Your task to perform on an android device: turn off location history Image 0: 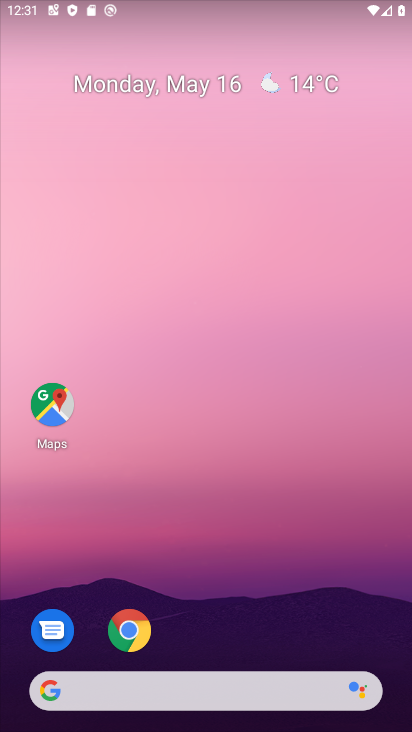
Step 0: drag from (348, 641) to (326, 53)
Your task to perform on an android device: turn off location history Image 1: 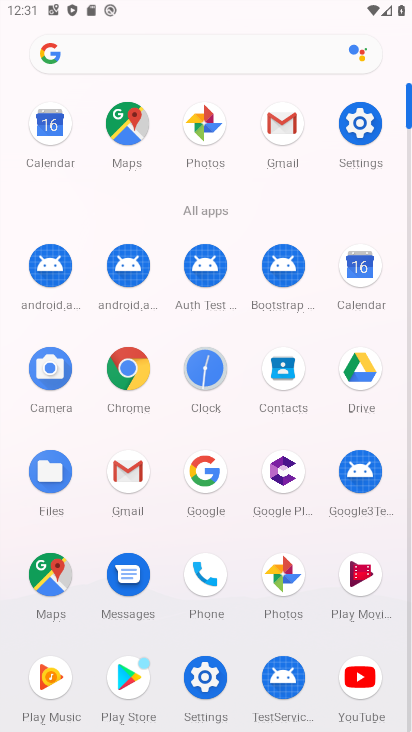
Step 1: click (205, 673)
Your task to perform on an android device: turn off location history Image 2: 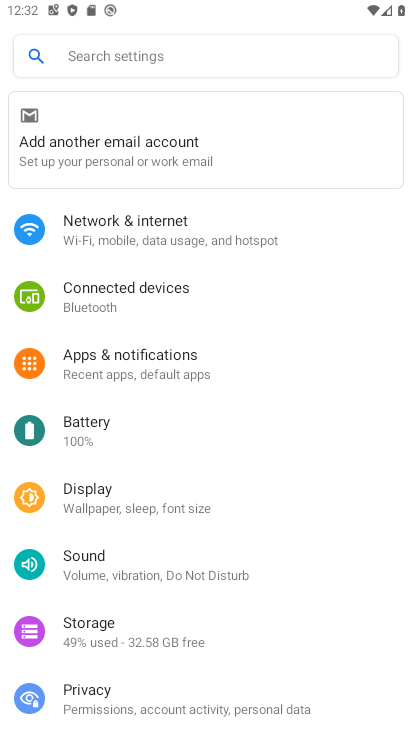
Step 2: drag from (301, 603) to (256, 293)
Your task to perform on an android device: turn off location history Image 3: 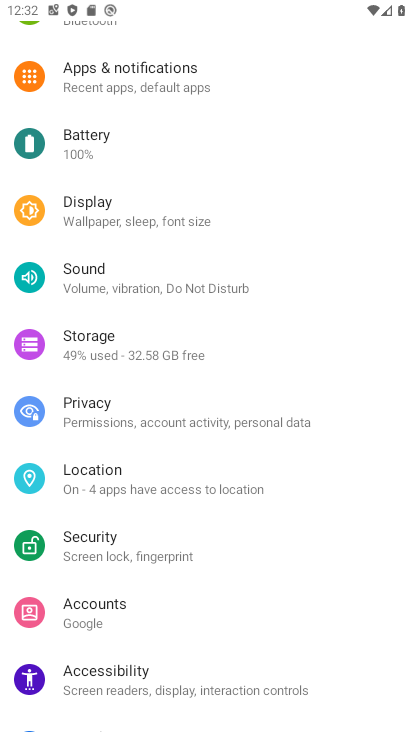
Step 3: click (128, 473)
Your task to perform on an android device: turn off location history Image 4: 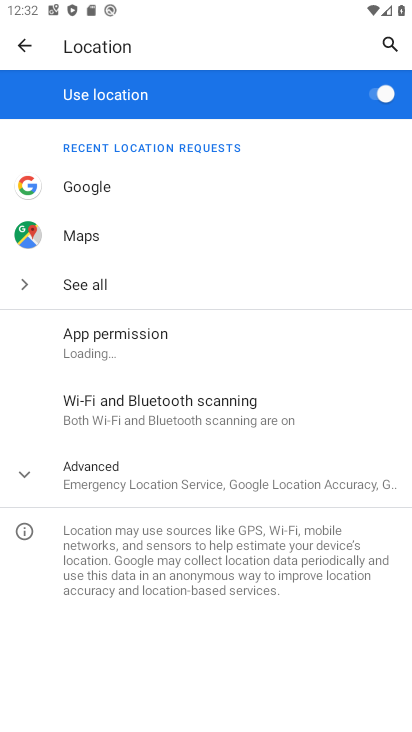
Step 4: click (129, 474)
Your task to perform on an android device: turn off location history Image 5: 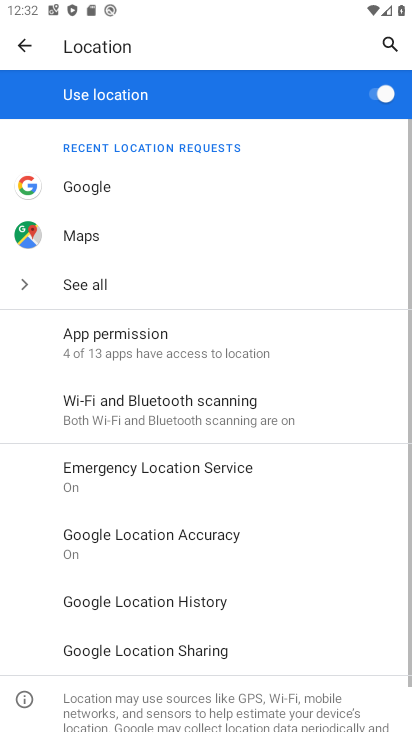
Step 5: click (165, 611)
Your task to perform on an android device: turn off location history Image 6: 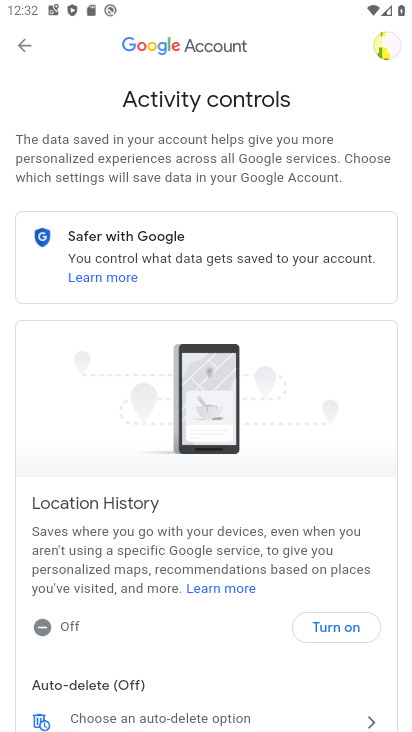
Step 6: task complete